Your task to perform on an android device: Open Youtube and go to the subscriptions tab Image 0: 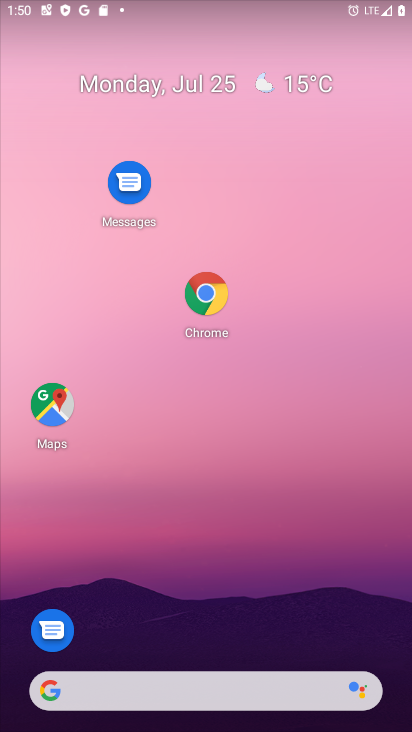
Step 0: drag from (258, 598) to (302, 40)
Your task to perform on an android device: Open Youtube and go to the subscriptions tab Image 1: 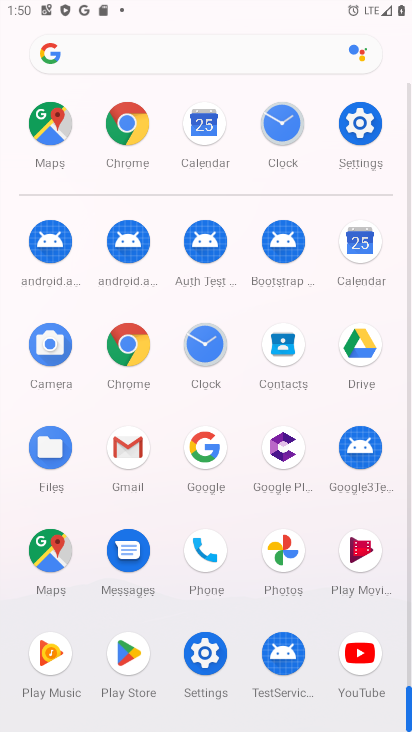
Step 1: click (358, 651)
Your task to perform on an android device: Open Youtube and go to the subscriptions tab Image 2: 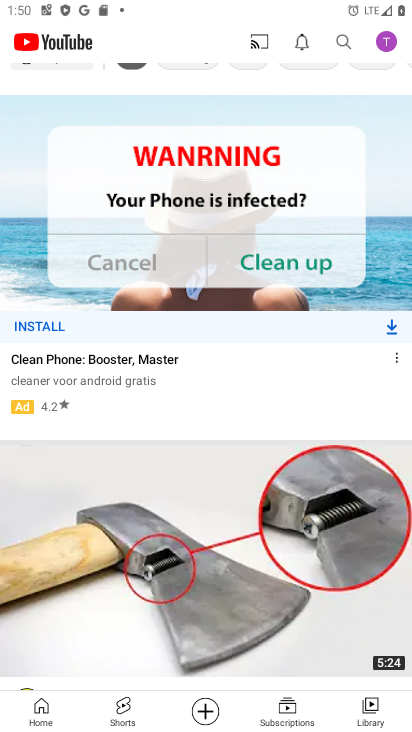
Step 2: click (297, 705)
Your task to perform on an android device: Open Youtube and go to the subscriptions tab Image 3: 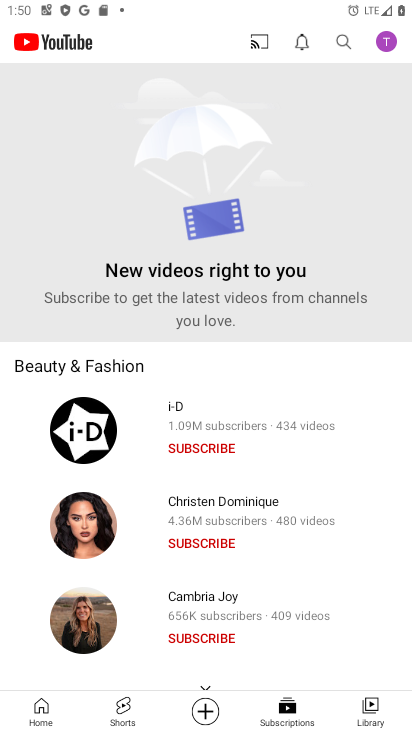
Step 3: task complete